Your task to perform on an android device: Go to location settings Image 0: 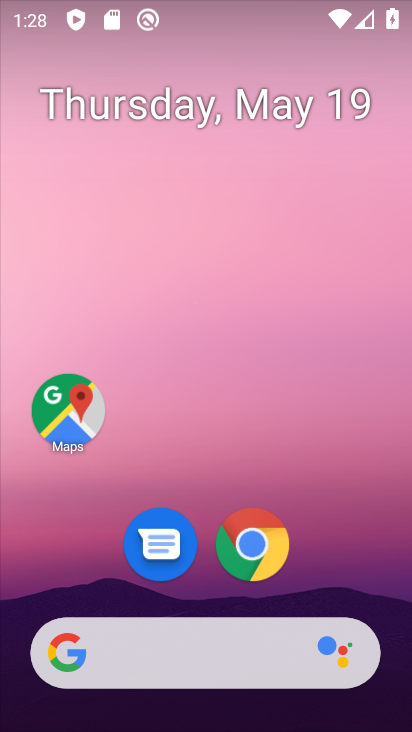
Step 0: drag from (261, 694) to (268, 297)
Your task to perform on an android device: Go to location settings Image 1: 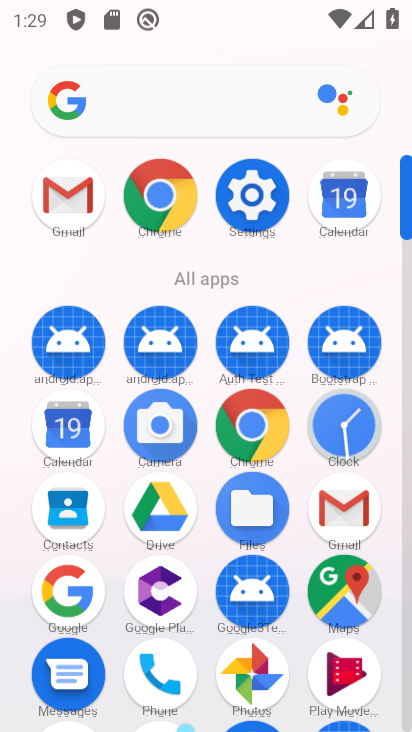
Step 1: click (247, 186)
Your task to perform on an android device: Go to location settings Image 2: 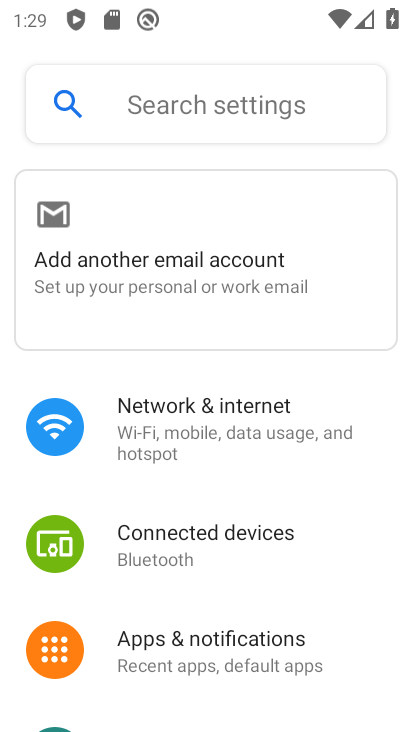
Step 2: click (203, 113)
Your task to perform on an android device: Go to location settings Image 3: 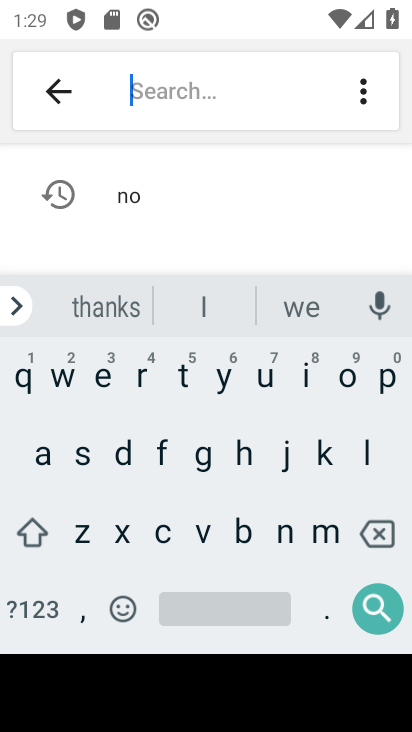
Step 3: click (362, 453)
Your task to perform on an android device: Go to location settings Image 4: 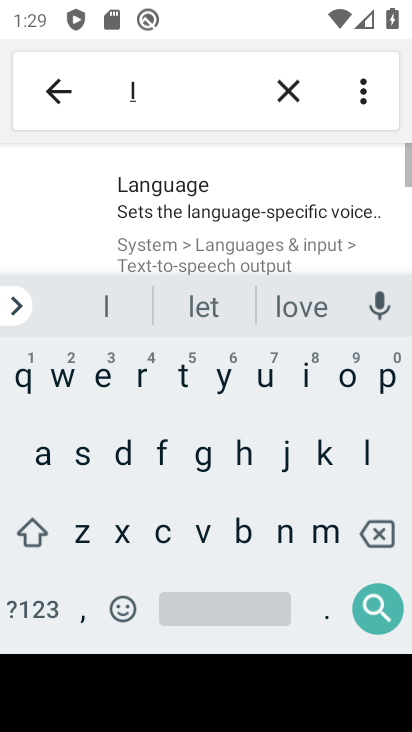
Step 4: click (345, 387)
Your task to perform on an android device: Go to location settings Image 5: 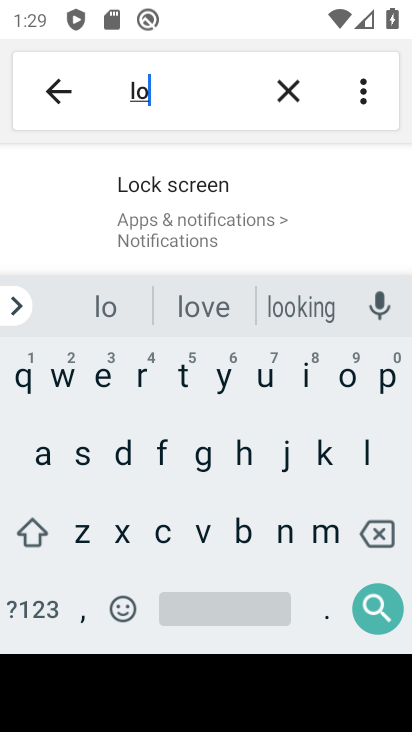
Step 5: drag from (266, 265) to (274, 161)
Your task to perform on an android device: Go to location settings Image 6: 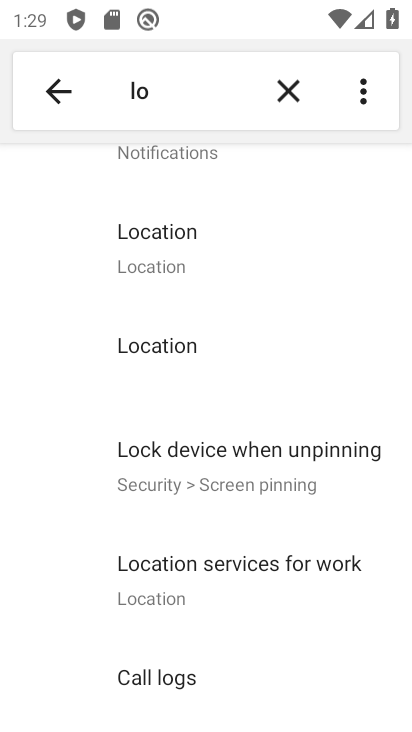
Step 6: click (159, 235)
Your task to perform on an android device: Go to location settings Image 7: 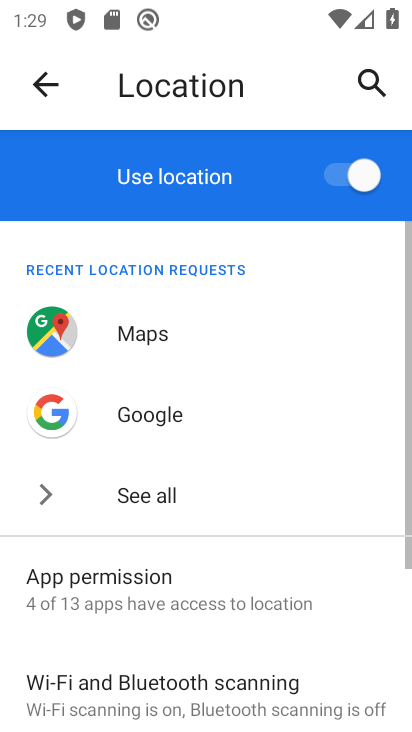
Step 7: drag from (190, 616) to (217, 333)
Your task to perform on an android device: Go to location settings Image 8: 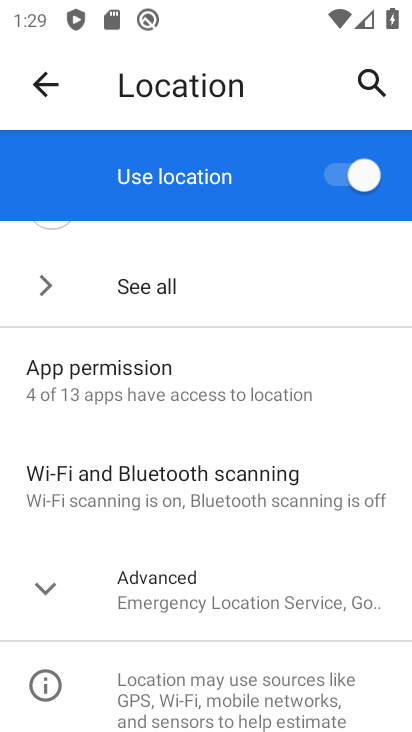
Step 8: click (51, 573)
Your task to perform on an android device: Go to location settings Image 9: 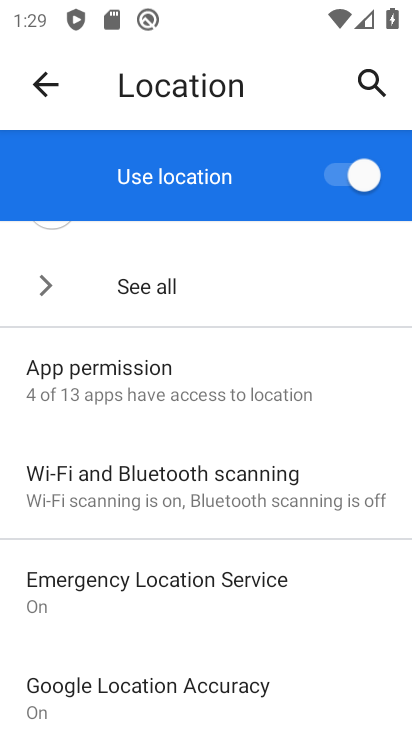
Step 9: drag from (176, 627) to (239, 306)
Your task to perform on an android device: Go to location settings Image 10: 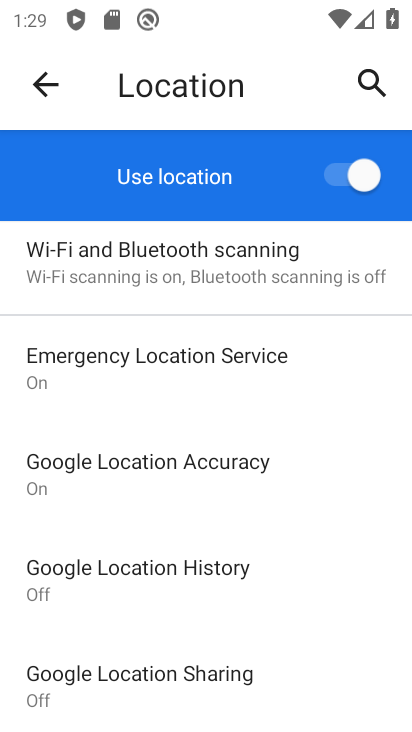
Step 10: click (137, 575)
Your task to perform on an android device: Go to location settings Image 11: 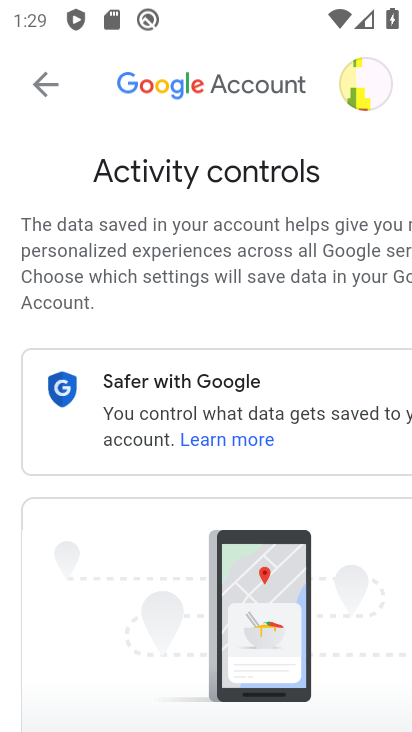
Step 11: drag from (192, 642) to (194, 367)
Your task to perform on an android device: Go to location settings Image 12: 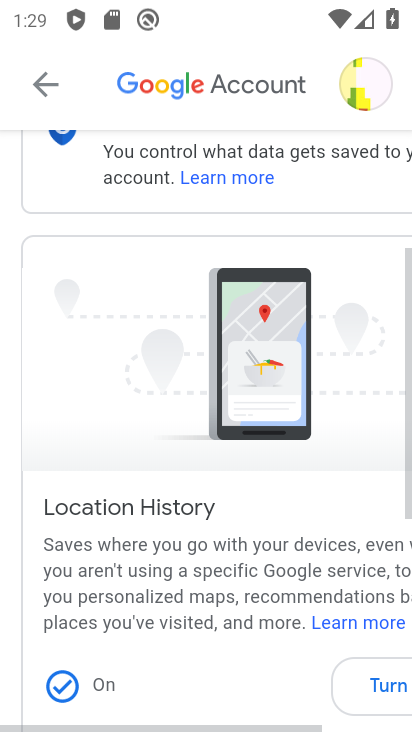
Step 12: click (194, 367)
Your task to perform on an android device: Go to location settings Image 13: 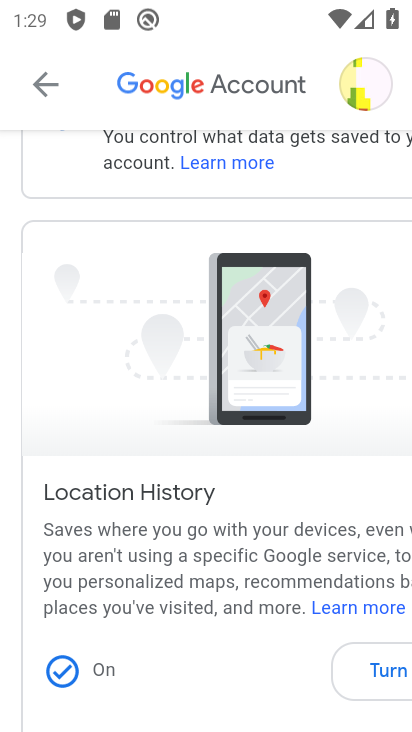
Step 13: task complete